Your task to perform on an android device: Open calendar and show me the second week of next month Image 0: 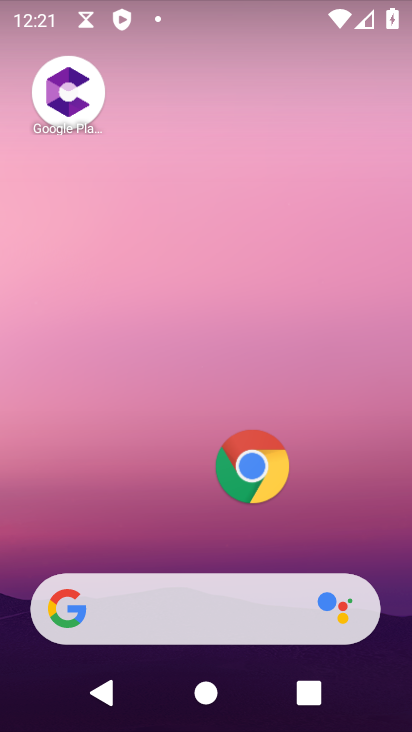
Step 0: drag from (178, 512) to (131, 116)
Your task to perform on an android device: Open calendar and show me the second week of next month Image 1: 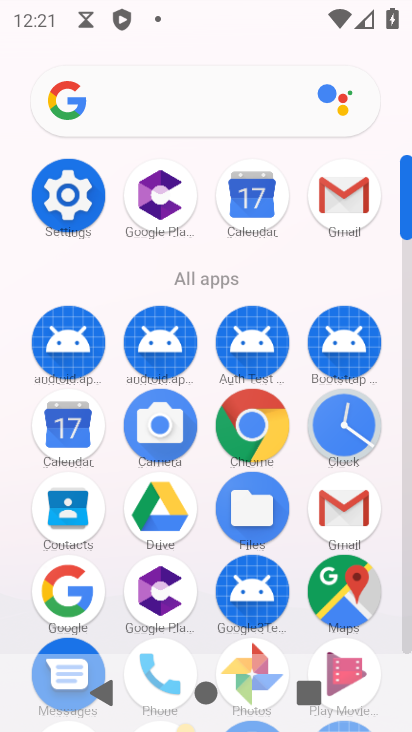
Step 1: drag from (206, 556) to (206, 236)
Your task to perform on an android device: Open calendar and show me the second week of next month Image 2: 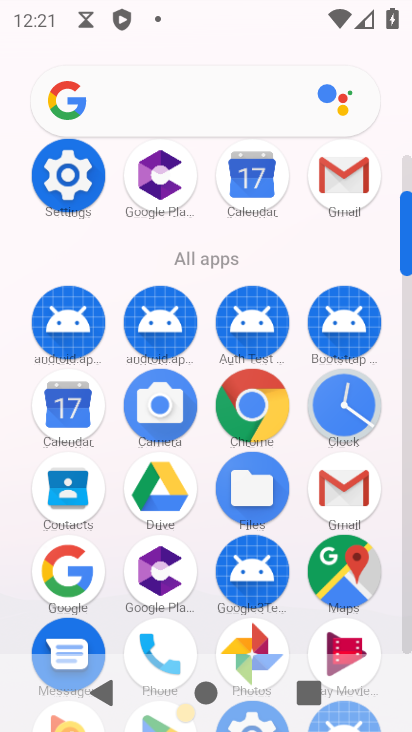
Step 2: click (75, 418)
Your task to perform on an android device: Open calendar and show me the second week of next month Image 3: 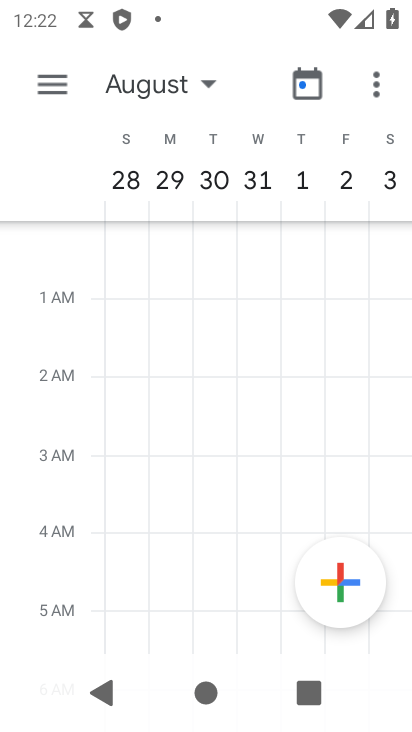
Step 3: click (171, 77)
Your task to perform on an android device: Open calendar and show me the second week of next month Image 4: 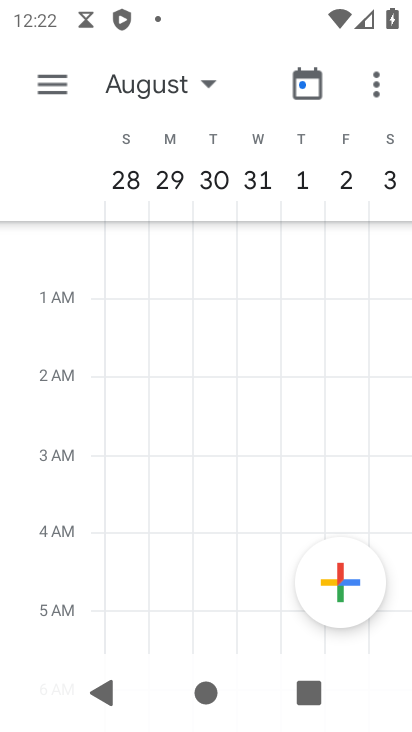
Step 4: click (171, 88)
Your task to perform on an android device: Open calendar and show me the second week of next month Image 5: 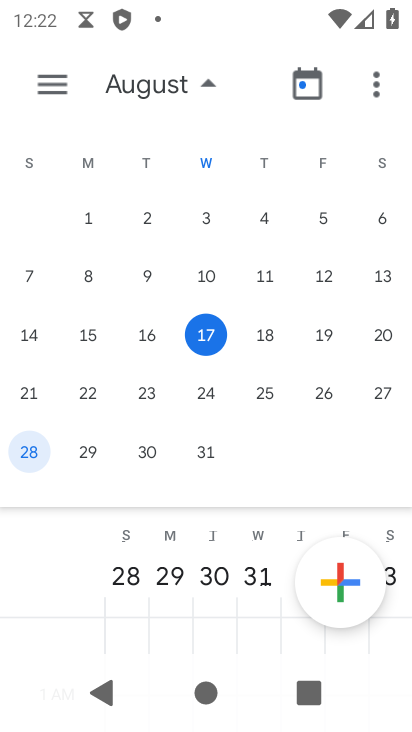
Step 5: drag from (315, 266) to (40, 352)
Your task to perform on an android device: Open calendar and show me the second week of next month Image 6: 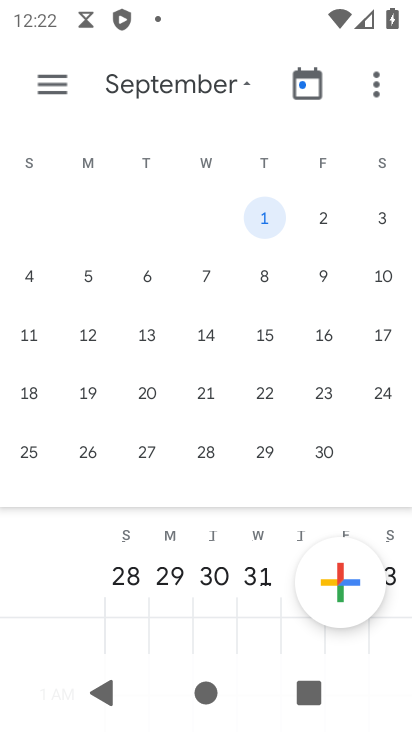
Step 6: click (31, 273)
Your task to perform on an android device: Open calendar and show me the second week of next month Image 7: 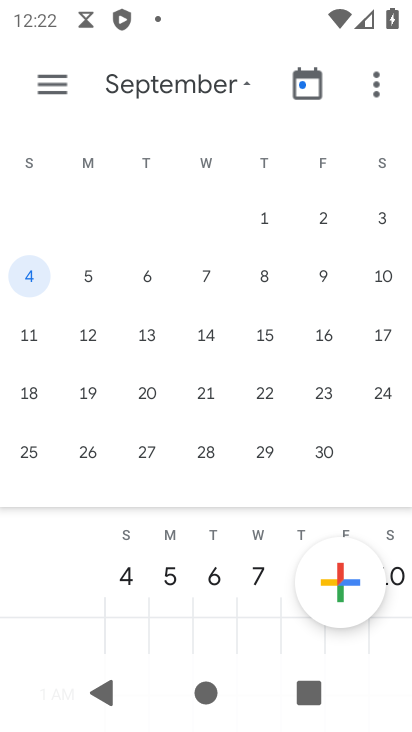
Step 7: click (31, 273)
Your task to perform on an android device: Open calendar and show me the second week of next month Image 8: 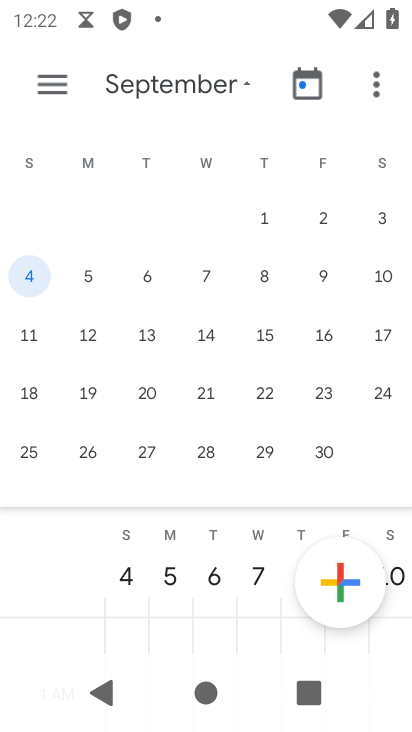
Step 8: click (31, 273)
Your task to perform on an android device: Open calendar and show me the second week of next month Image 9: 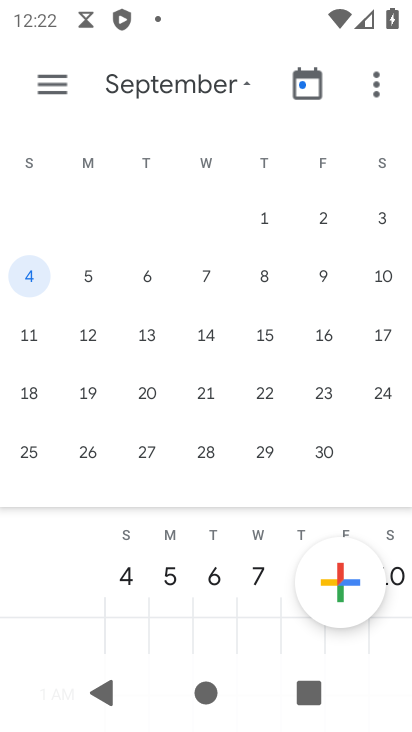
Step 9: click (31, 273)
Your task to perform on an android device: Open calendar and show me the second week of next month Image 10: 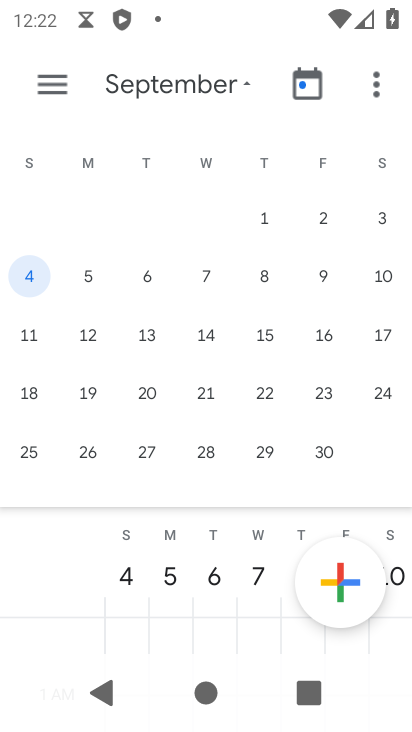
Step 10: task complete